Your task to perform on an android device: clear all cookies in the chrome app Image 0: 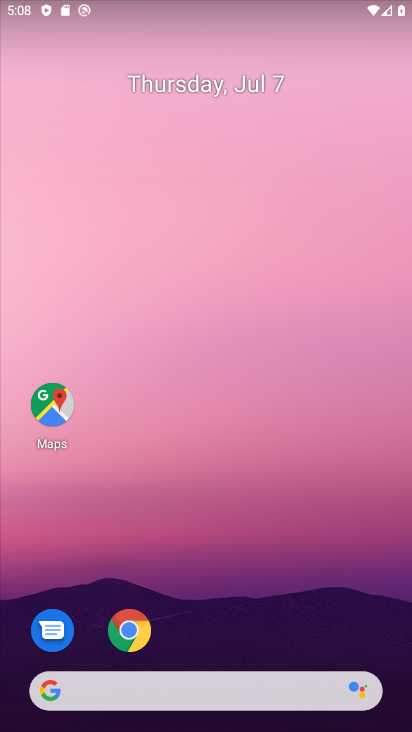
Step 0: drag from (248, 16) to (276, 227)
Your task to perform on an android device: clear all cookies in the chrome app Image 1: 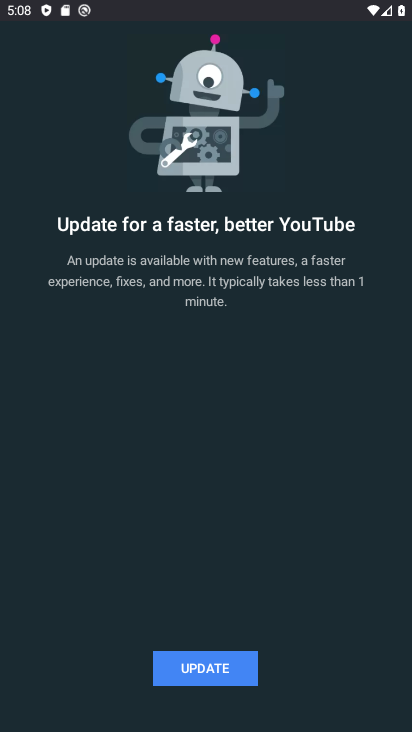
Step 1: press home button
Your task to perform on an android device: clear all cookies in the chrome app Image 2: 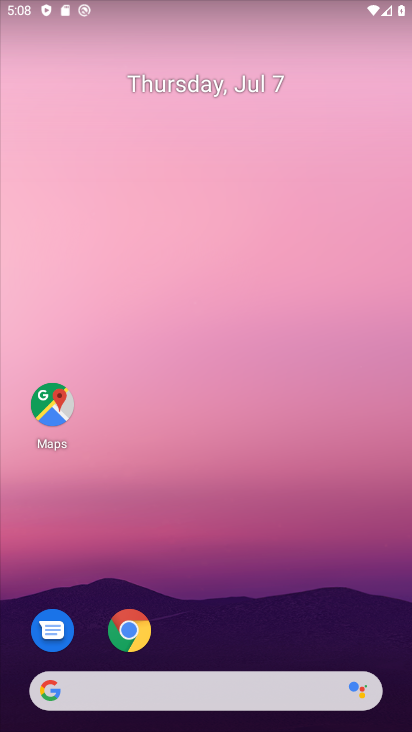
Step 2: drag from (196, 462) to (196, 18)
Your task to perform on an android device: clear all cookies in the chrome app Image 3: 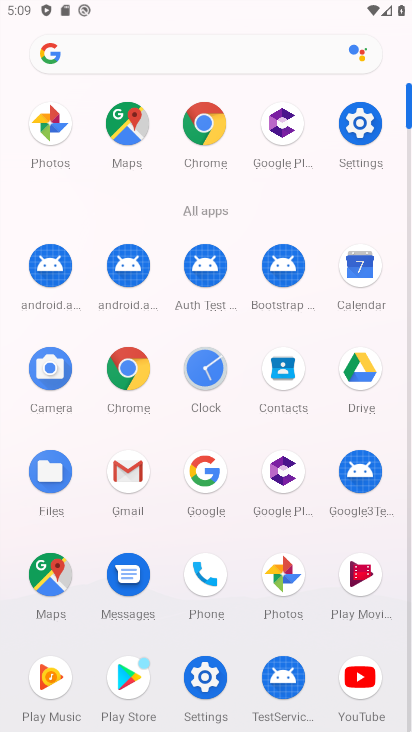
Step 3: click (354, 131)
Your task to perform on an android device: clear all cookies in the chrome app Image 4: 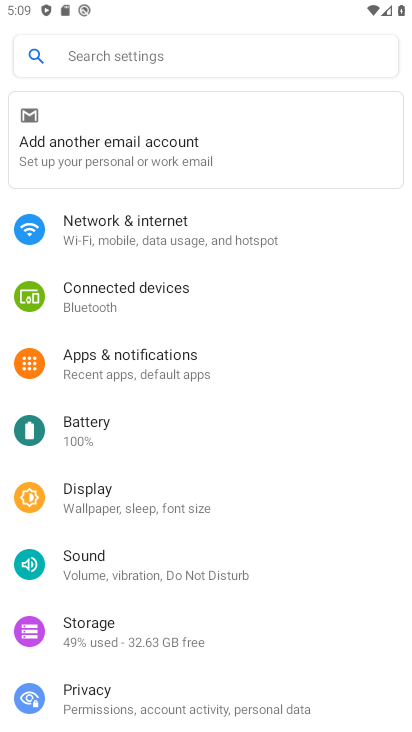
Step 4: click (129, 504)
Your task to perform on an android device: clear all cookies in the chrome app Image 5: 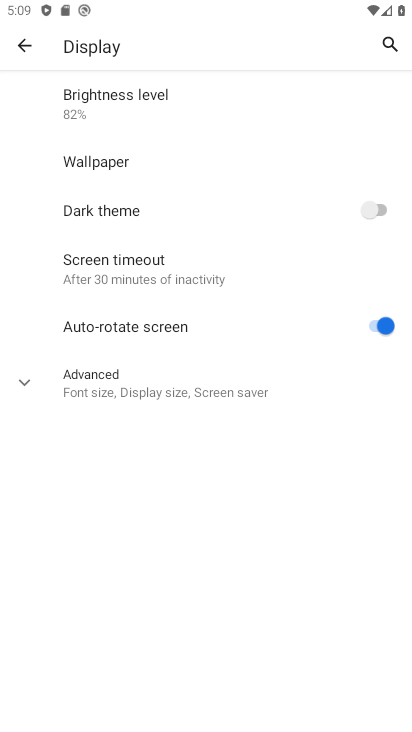
Step 5: task complete